Your task to perform on an android device: turn on improve location accuracy Image 0: 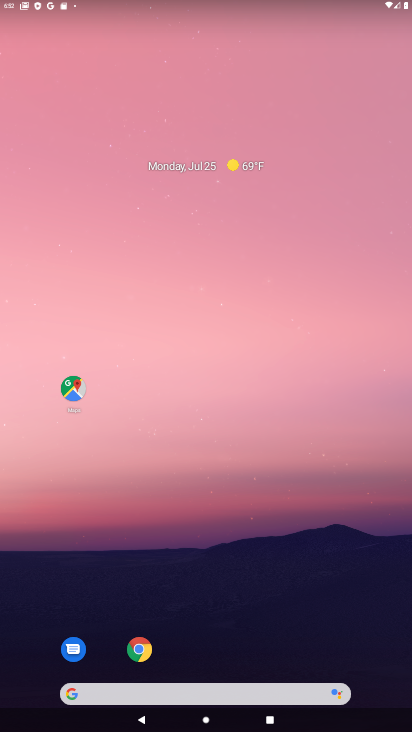
Step 0: drag from (262, 616) to (262, 108)
Your task to perform on an android device: turn on improve location accuracy Image 1: 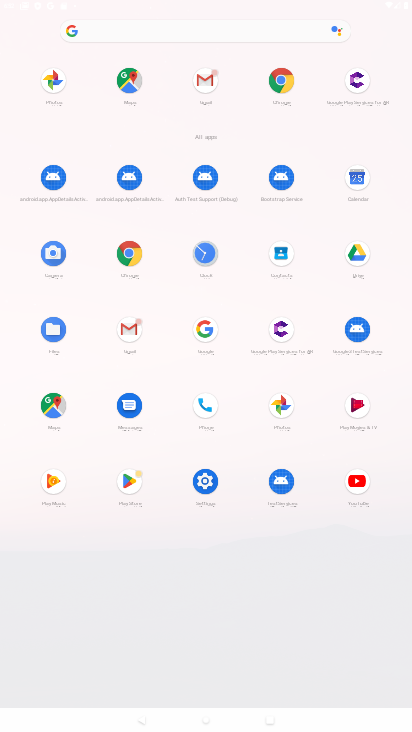
Step 1: click (212, 483)
Your task to perform on an android device: turn on improve location accuracy Image 2: 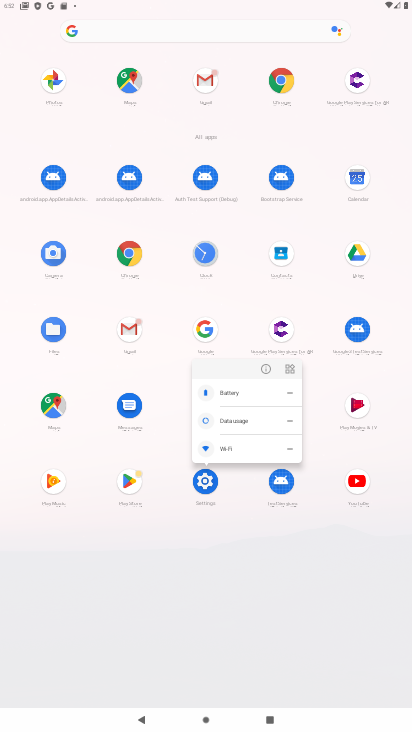
Step 2: click (212, 483)
Your task to perform on an android device: turn on improve location accuracy Image 3: 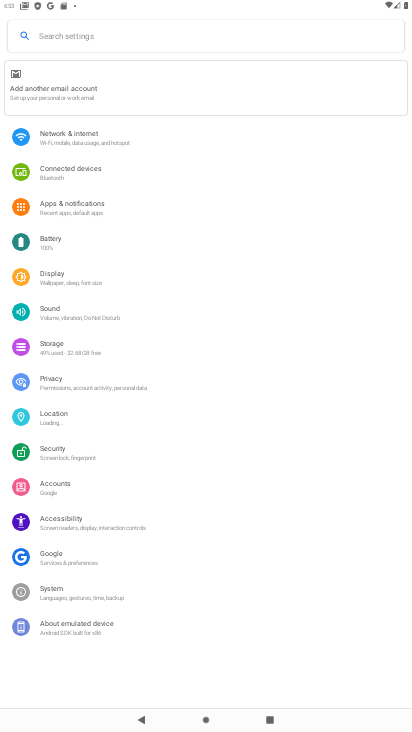
Step 3: click (51, 421)
Your task to perform on an android device: turn on improve location accuracy Image 4: 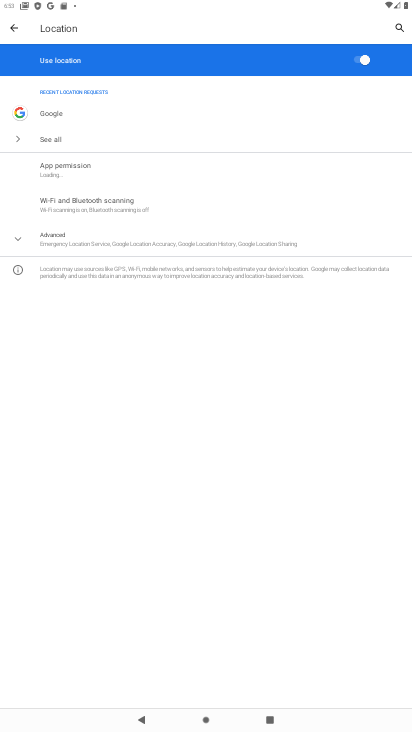
Step 4: click (53, 239)
Your task to perform on an android device: turn on improve location accuracy Image 5: 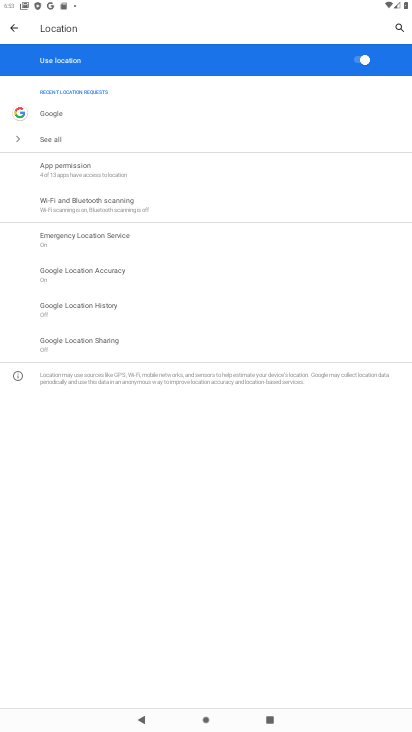
Step 5: click (75, 276)
Your task to perform on an android device: turn on improve location accuracy Image 6: 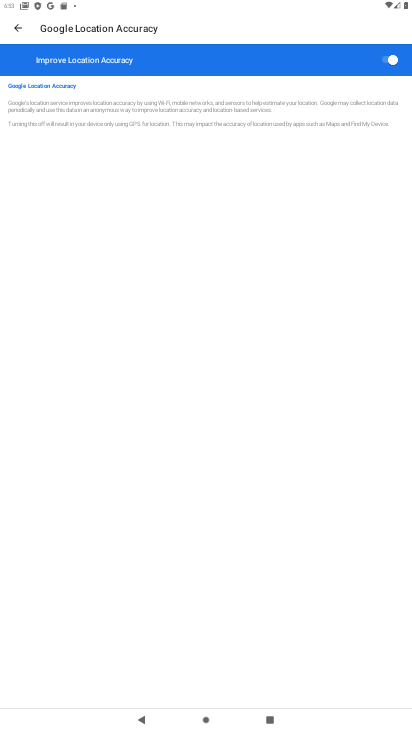
Step 6: task complete